Your task to perform on an android device: toggle location history Image 0: 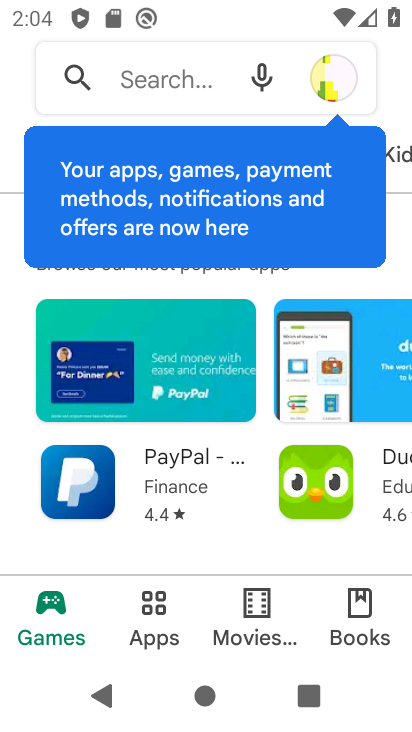
Step 0: press home button
Your task to perform on an android device: toggle location history Image 1: 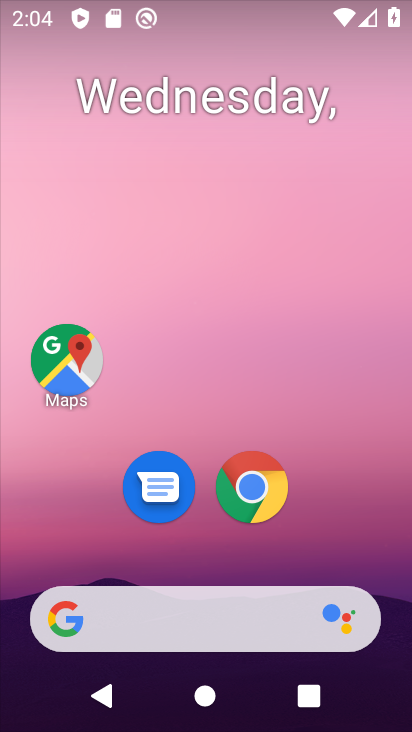
Step 1: drag from (206, 526) to (205, 81)
Your task to perform on an android device: toggle location history Image 2: 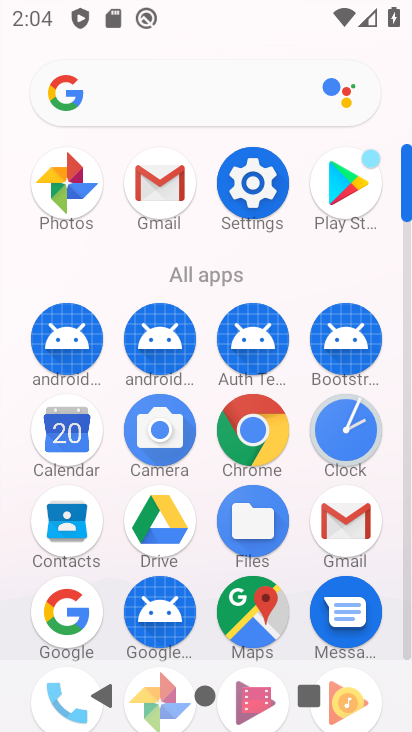
Step 2: click (253, 184)
Your task to perform on an android device: toggle location history Image 3: 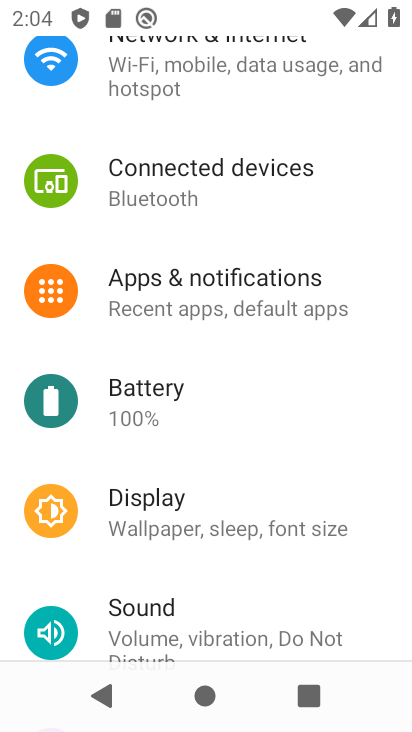
Step 3: drag from (232, 531) to (213, 226)
Your task to perform on an android device: toggle location history Image 4: 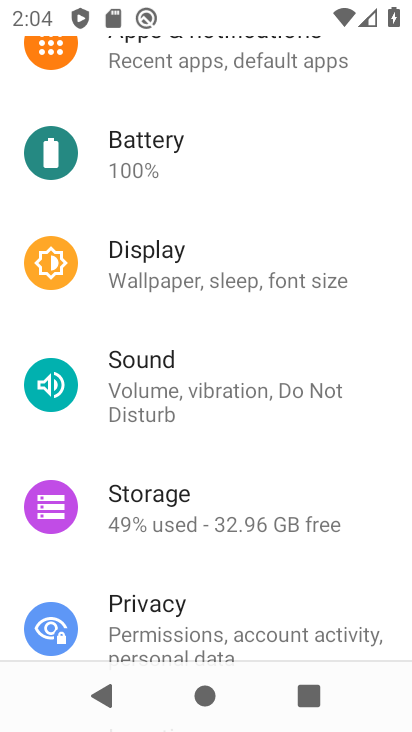
Step 4: drag from (213, 572) to (223, 237)
Your task to perform on an android device: toggle location history Image 5: 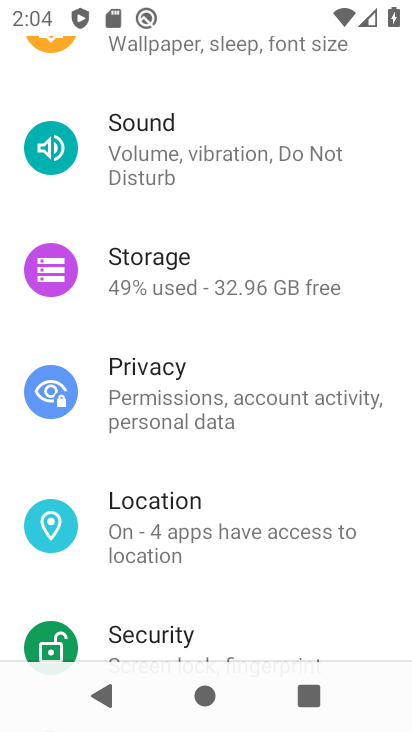
Step 5: click (210, 530)
Your task to perform on an android device: toggle location history Image 6: 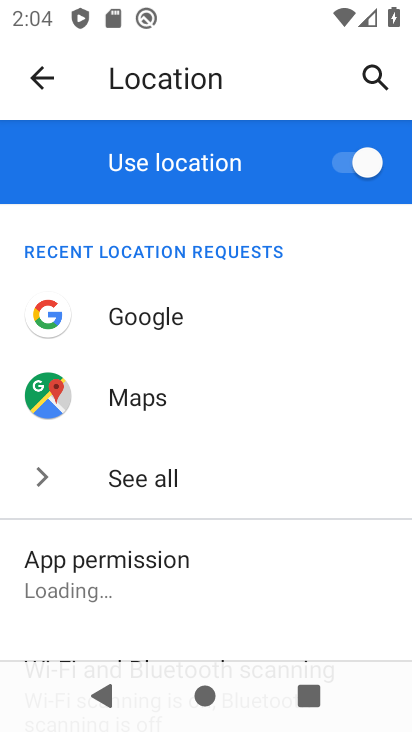
Step 6: drag from (233, 574) to (232, 350)
Your task to perform on an android device: toggle location history Image 7: 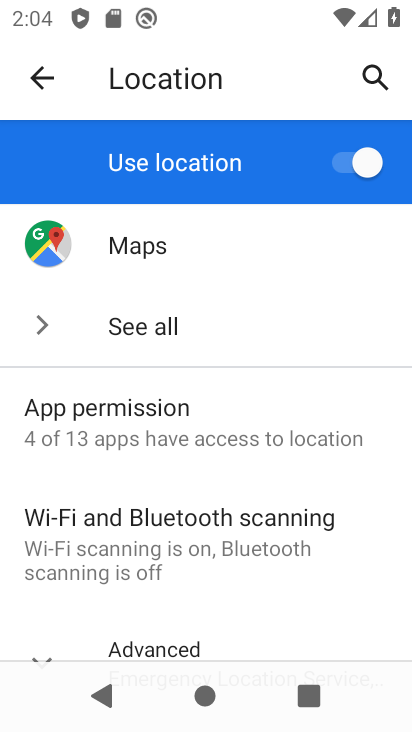
Step 7: drag from (235, 534) to (231, 314)
Your task to perform on an android device: toggle location history Image 8: 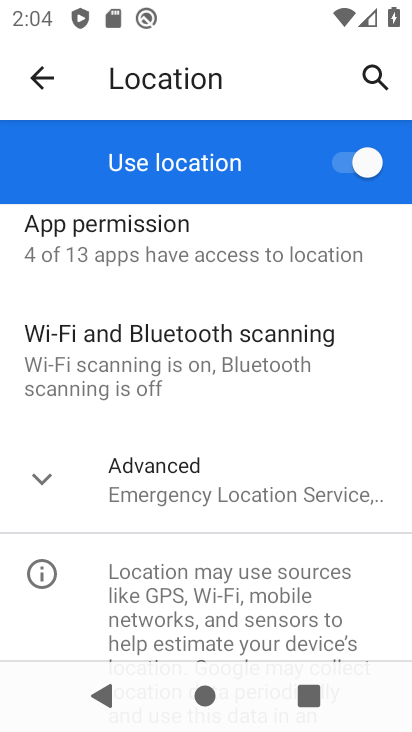
Step 8: click (216, 479)
Your task to perform on an android device: toggle location history Image 9: 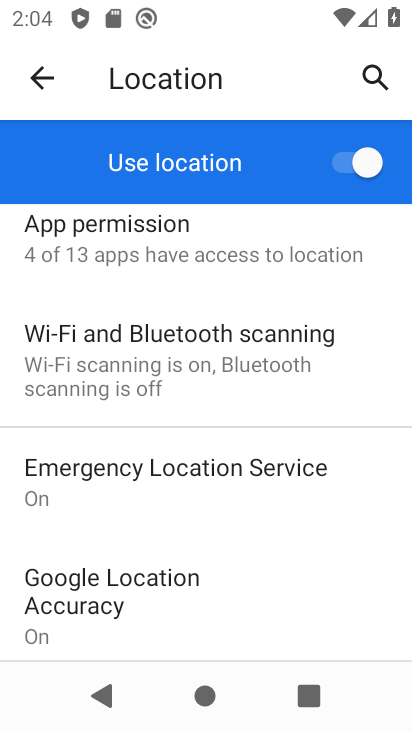
Step 9: drag from (223, 569) to (225, 338)
Your task to perform on an android device: toggle location history Image 10: 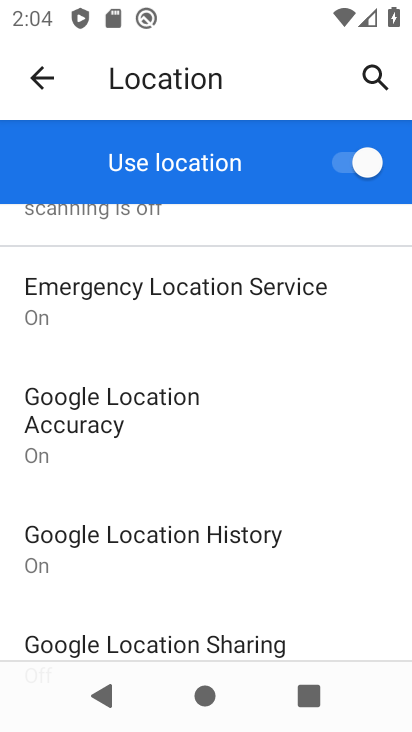
Step 10: click (166, 532)
Your task to perform on an android device: toggle location history Image 11: 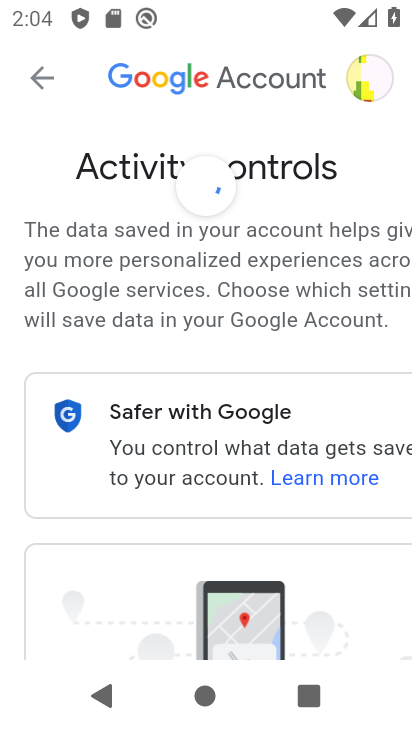
Step 11: task complete